Your task to perform on an android device: Open Yahoo.com Image 0: 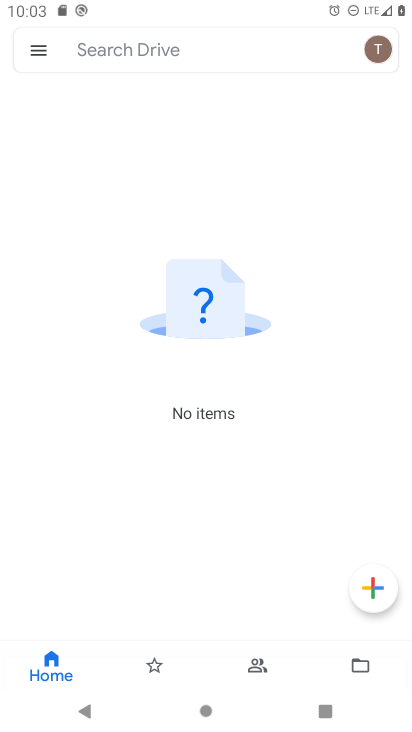
Step 0: press home button
Your task to perform on an android device: Open Yahoo.com Image 1: 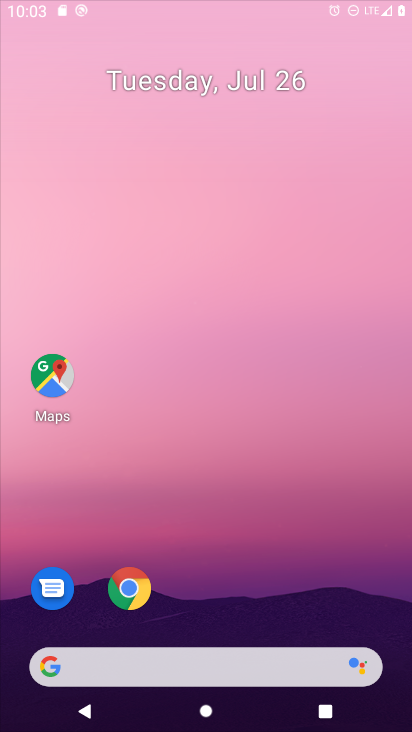
Step 1: drag from (144, 684) to (78, 216)
Your task to perform on an android device: Open Yahoo.com Image 2: 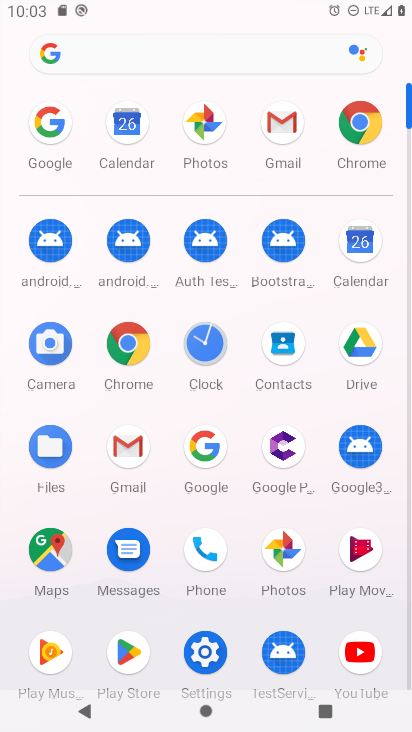
Step 2: click (382, 142)
Your task to perform on an android device: Open Yahoo.com Image 3: 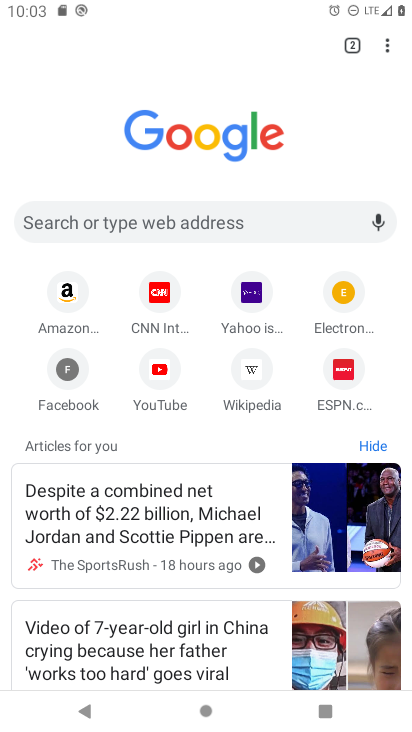
Step 3: click (287, 231)
Your task to perform on an android device: Open Yahoo.com Image 4: 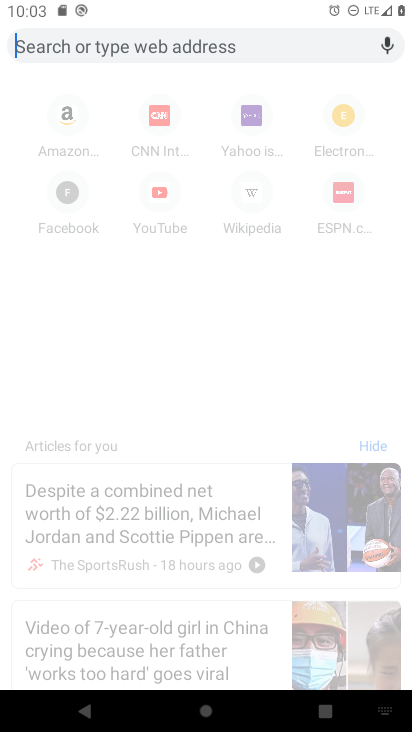
Step 4: click (257, 363)
Your task to perform on an android device: Open Yahoo.com Image 5: 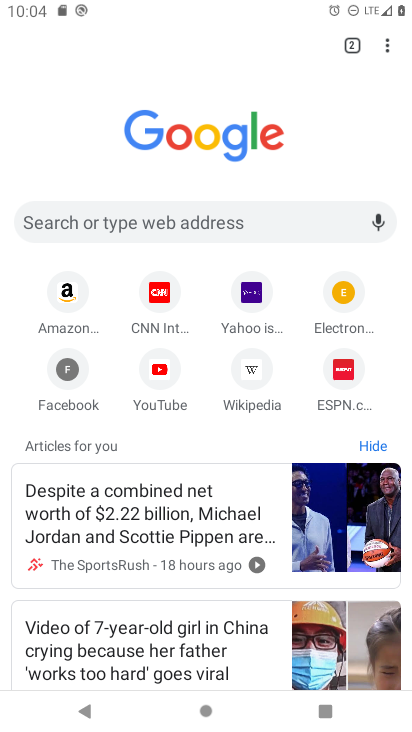
Step 5: click (250, 234)
Your task to perform on an android device: Open Yahoo.com Image 6: 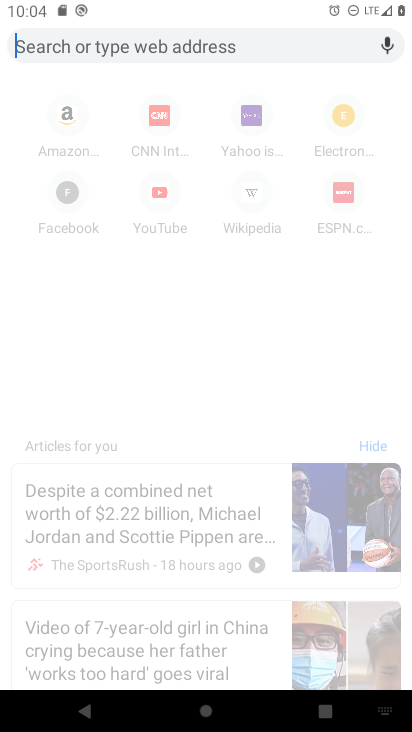
Step 6: type "yahoo"
Your task to perform on an android device: Open Yahoo.com Image 7: 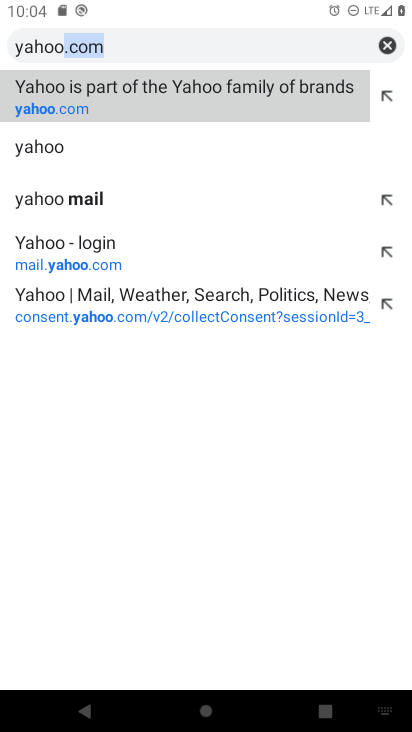
Step 7: click (252, 97)
Your task to perform on an android device: Open Yahoo.com Image 8: 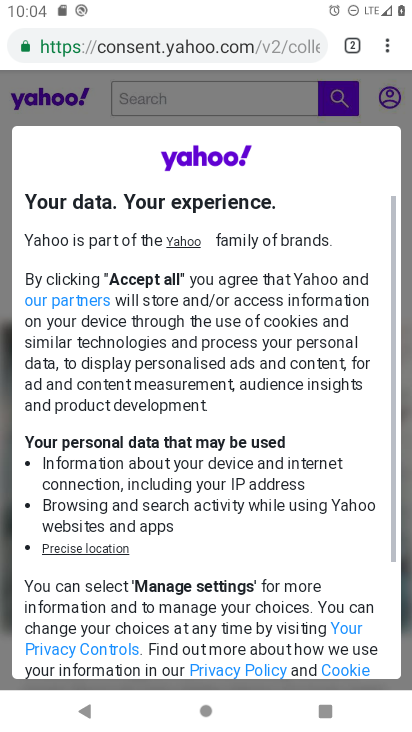
Step 8: task complete